Your task to perform on an android device: change timer sound Image 0: 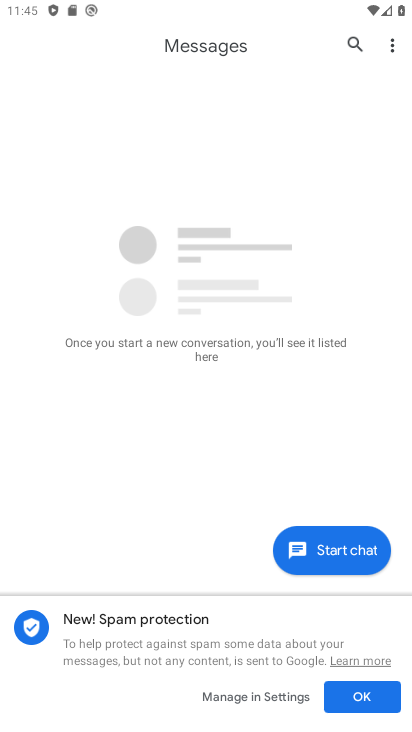
Step 0: press home button
Your task to perform on an android device: change timer sound Image 1: 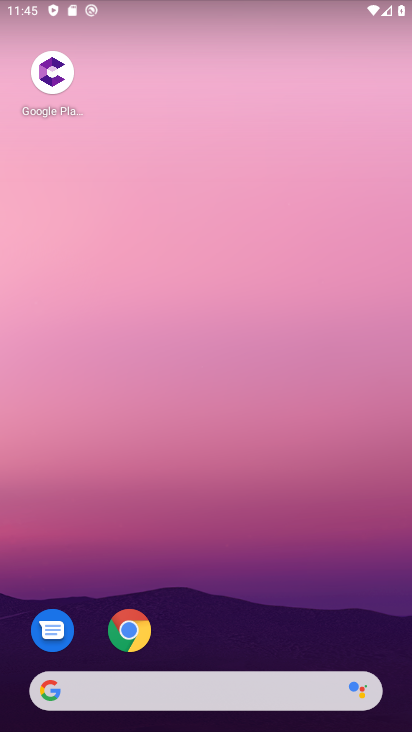
Step 1: drag from (203, 583) to (269, 139)
Your task to perform on an android device: change timer sound Image 2: 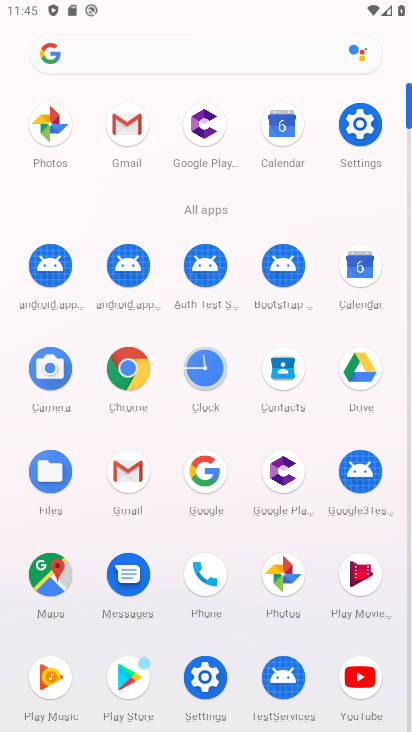
Step 2: click (212, 369)
Your task to perform on an android device: change timer sound Image 3: 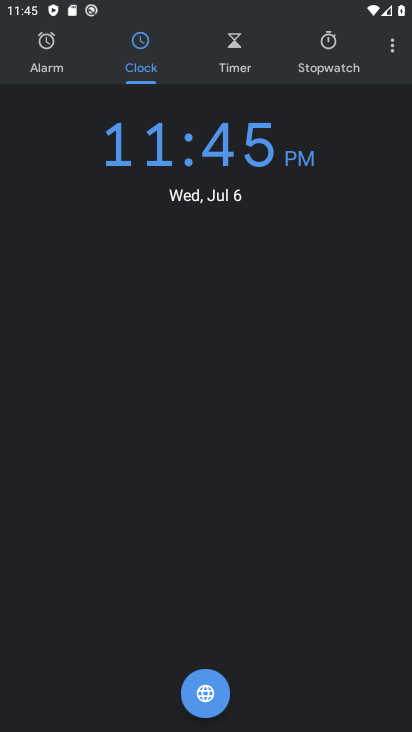
Step 3: click (391, 44)
Your task to perform on an android device: change timer sound Image 4: 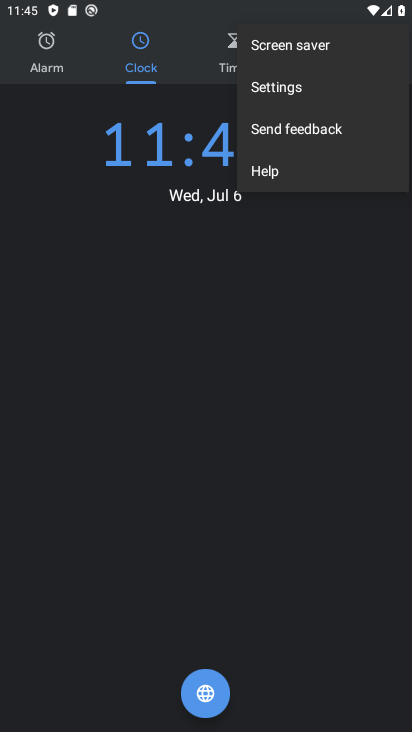
Step 4: click (282, 87)
Your task to perform on an android device: change timer sound Image 5: 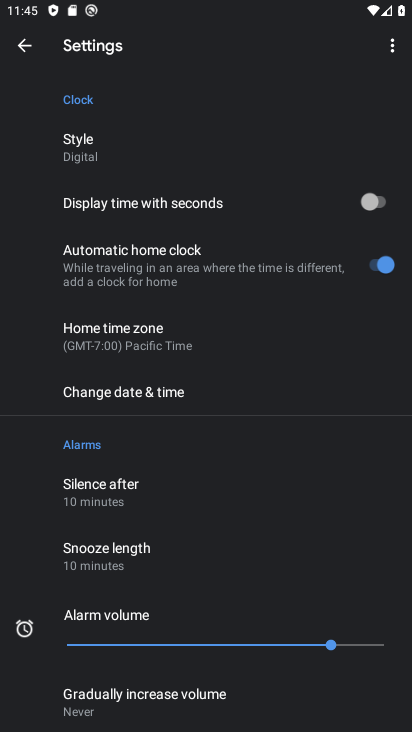
Step 5: drag from (163, 547) to (194, 373)
Your task to perform on an android device: change timer sound Image 6: 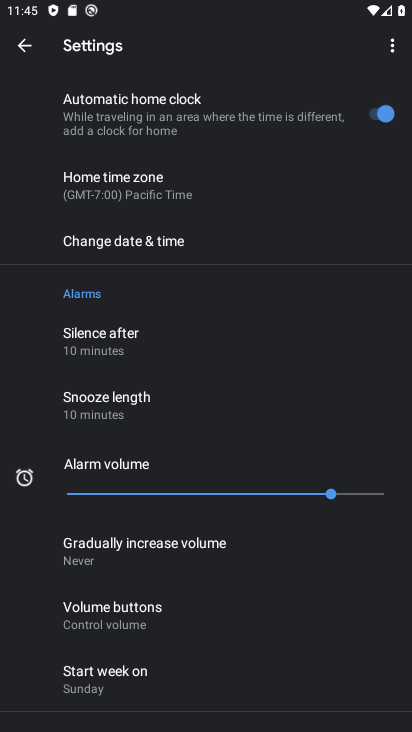
Step 6: drag from (131, 622) to (148, 293)
Your task to perform on an android device: change timer sound Image 7: 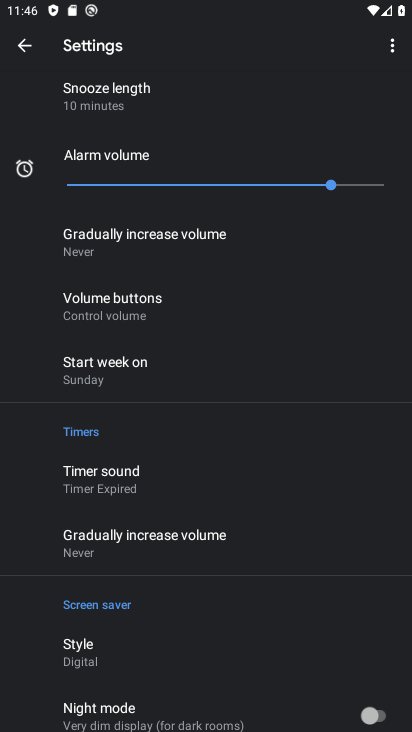
Step 7: click (121, 489)
Your task to perform on an android device: change timer sound Image 8: 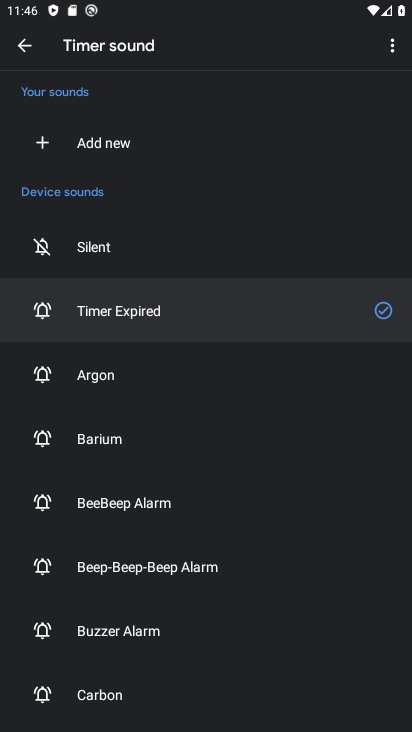
Step 8: click (101, 387)
Your task to perform on an android device: change timer sound Image 9: 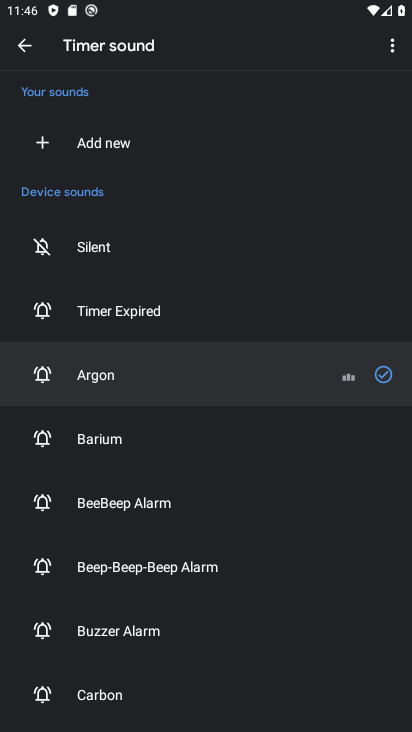
Step 9: task complete